Your task to perform on an android device: delete location history Image 0: 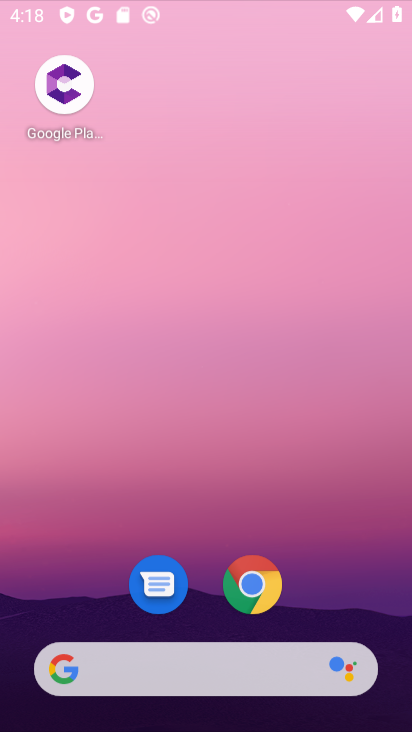
Step 0: click (251, 578)
Your task to perform on an android device: delete location history Image 1: 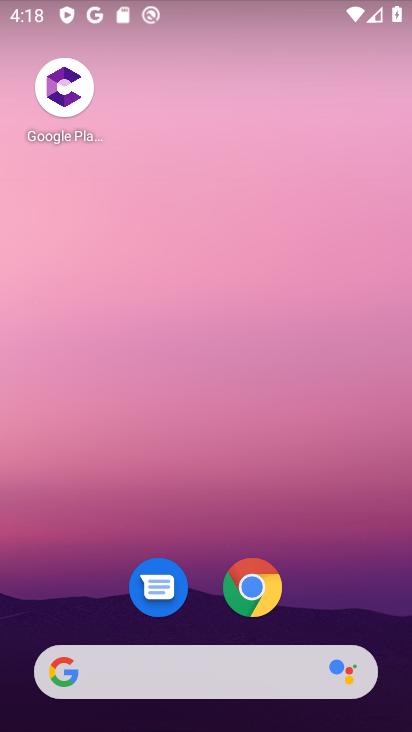
Step 1: drag from (211, 519) to (211, 81)
Your task to perform on an android device: delete location history Image 2: 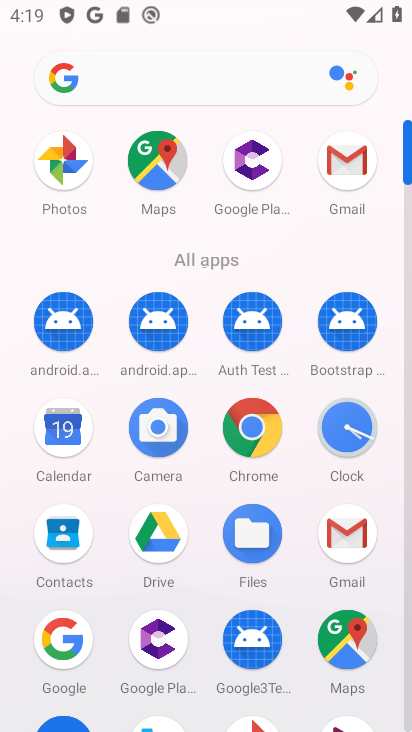
Step 2: click (355, 636)
Your task to perform on an android device: delete location history Image 3: 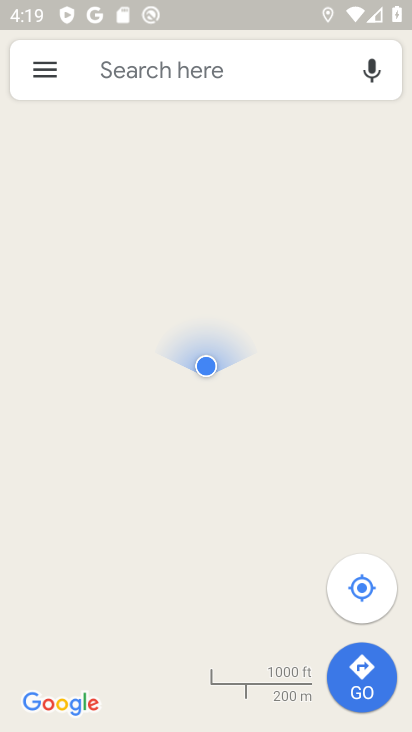
Step 3: click (40, 70)
Your task to perform on an android device: delete location history Image 4: 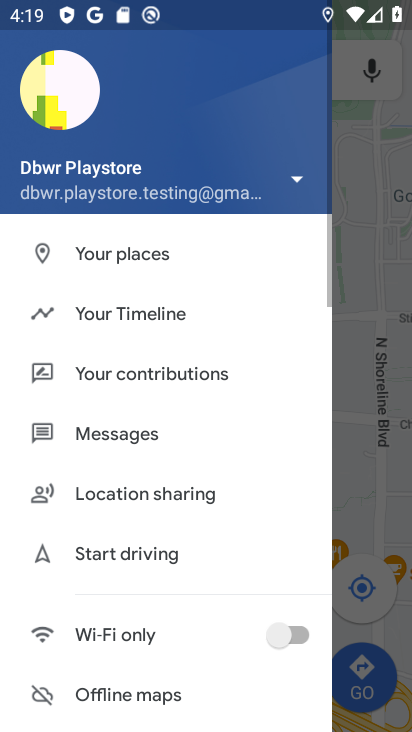
Step 4: click (116, 310)
Your task to perform on an android device: delete location history Image 5: 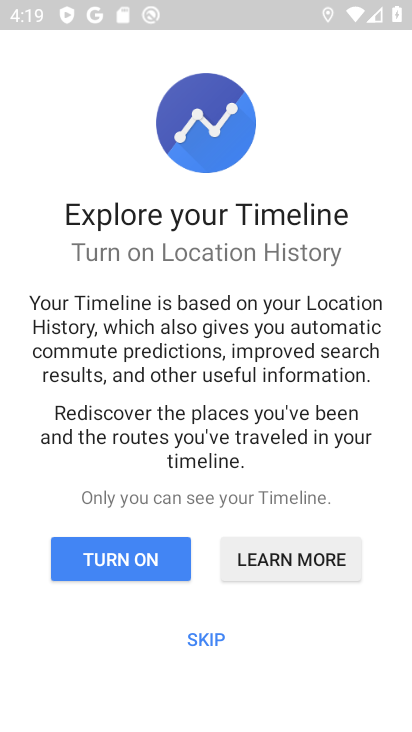
Step 5: click (136, 562)
Your task to perform on an android device: delete location history Image 6: 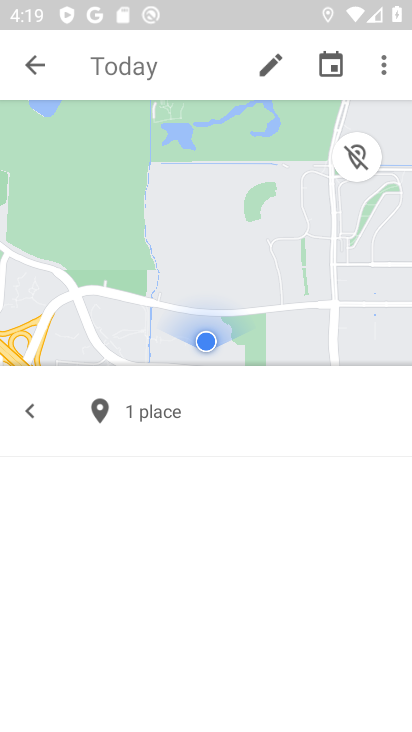
Step 6: click (382, 72)
Your task to perform on an android device: delete location history Image 7: 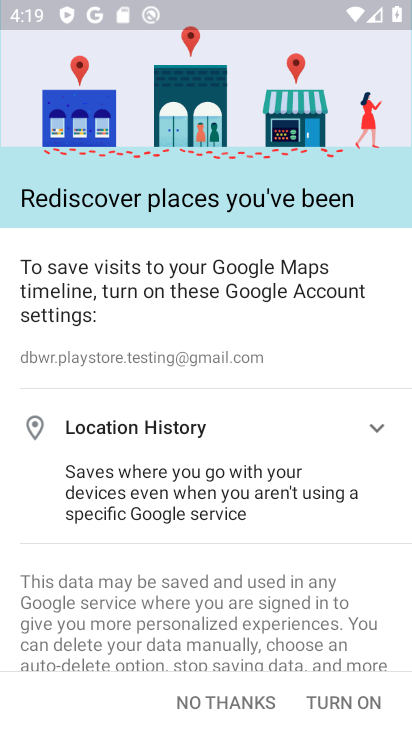
Step 7: drag from (279, 632) to (247, 236)
Your task to perform on an android device: delete location history Image 8: 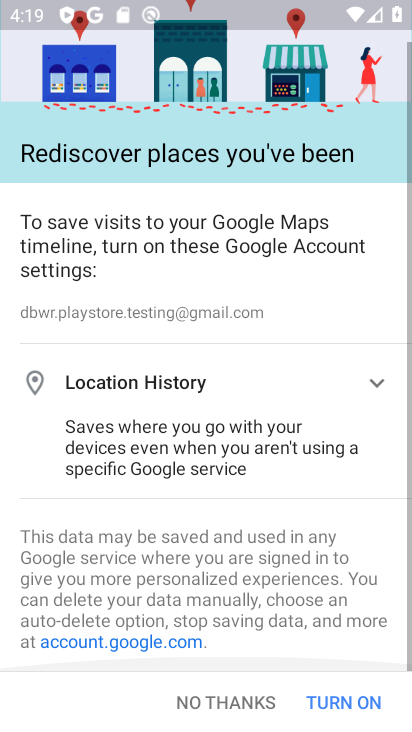
Step 8: click (229, 704)
Your task to perform on an android device: delete location history Image 9: 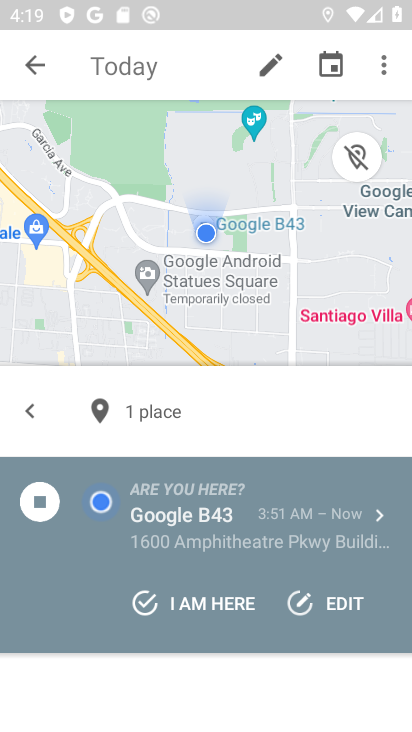
Step 9: click (381, 67)
Your task to perform on an android device: delete location history Image 10: 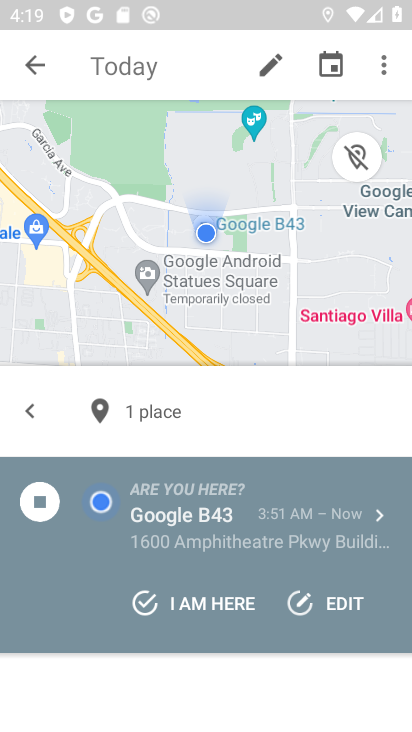
Step 10: click (383, 59)
Your task to perform on an android device: delete location history Image 11: 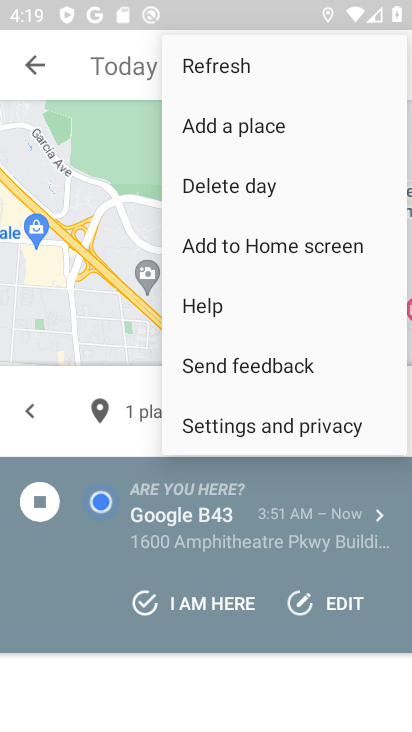
Step 11: click (221, 425)
Your task to perform on an android device: delete location history Image 12: 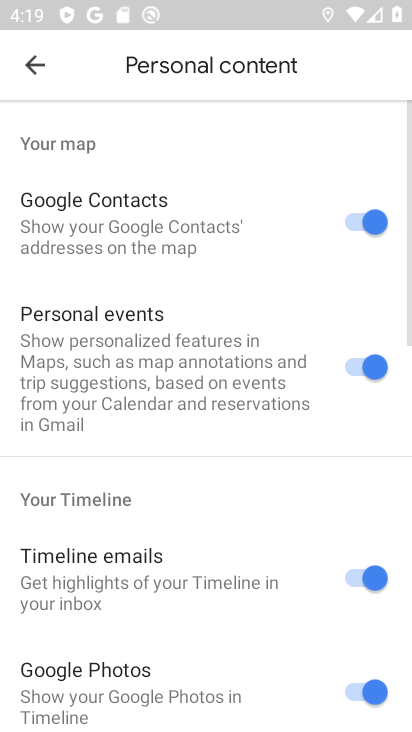
Step 12: drag from (200, 674) to (193, 244)
Your task to perform on an android device: delete location history Image 13: 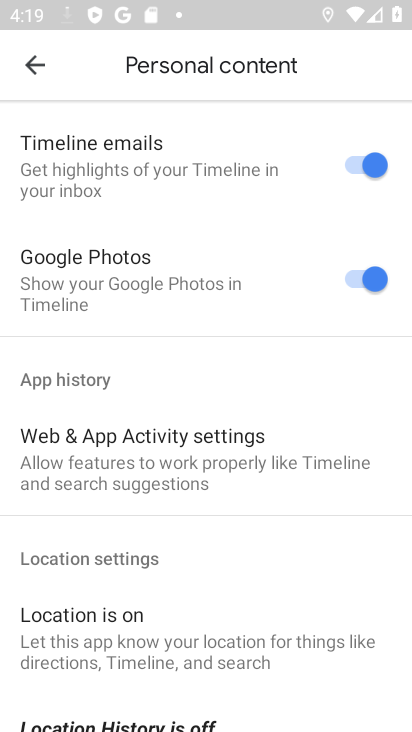
Step 13: drag from (201, 672) to (231, 196)
Your task to perform on an android device: delete location history Image 14: 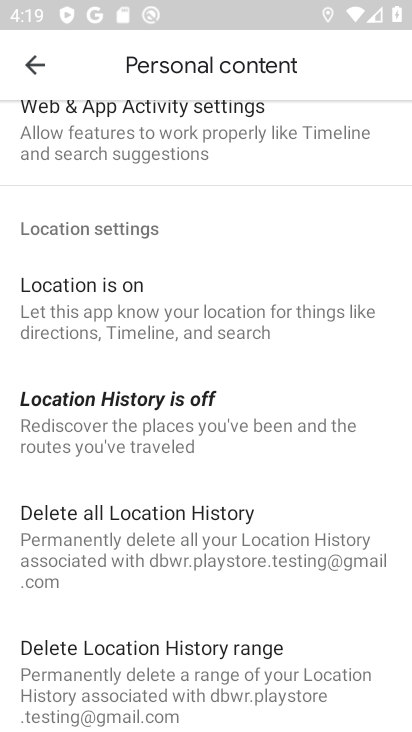
Step 14: click (174, 523)
Your task to perform on an android device: delete location history Image 15: 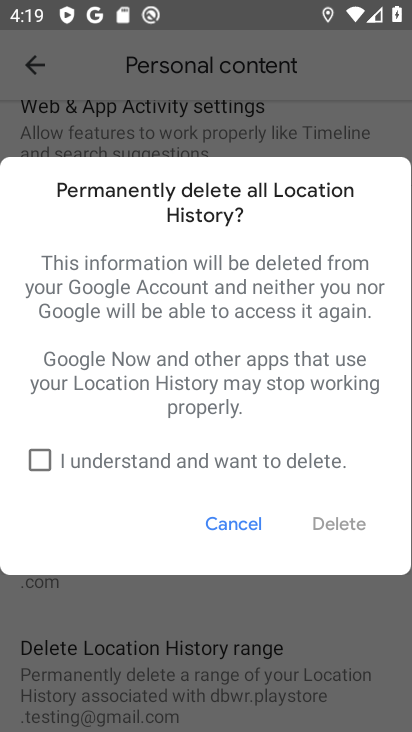
Step 15: click (38, 460)
Your task to perform on an android device: delete location history Image 16: 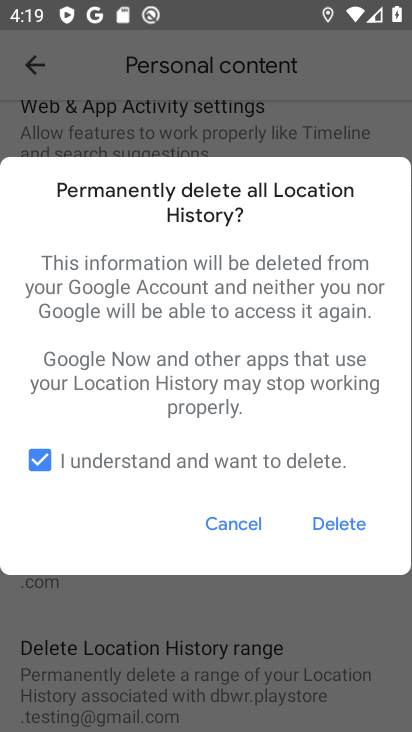
Step 16: click (329, 517)
Your task to perform on an android device: delete location history Image 17: 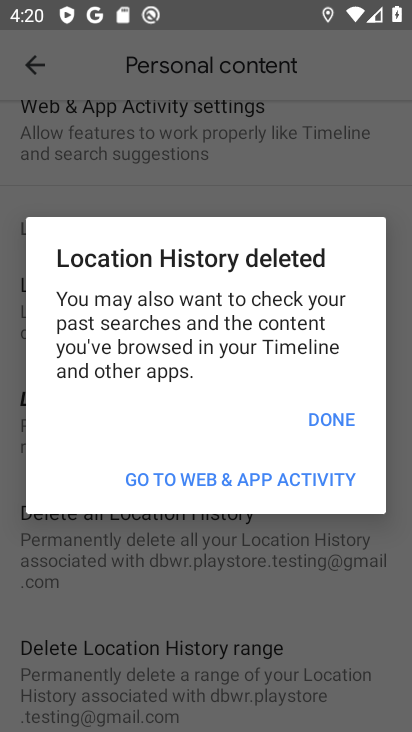
Step 17: click (322, 418)
Your task to perform on an android device: delete location history Image 18: 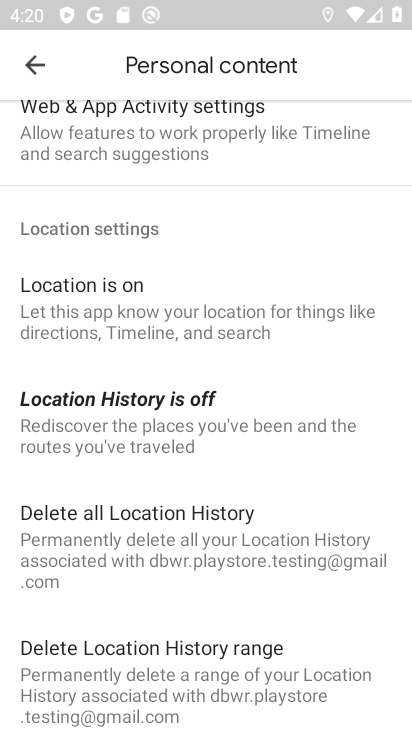
Step 18: task complete